Your task to perform on an android device: Open the Play Movies app and select the watchlist tab. Image 0: 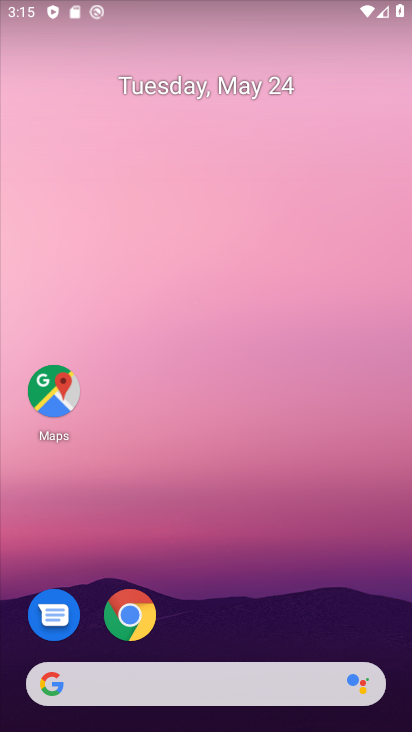
Step 0: drag from (210, 726) to (195, 45)
Your task to perform on an android device: Open the Play Movies app and select the watchlist tab. Image 1: 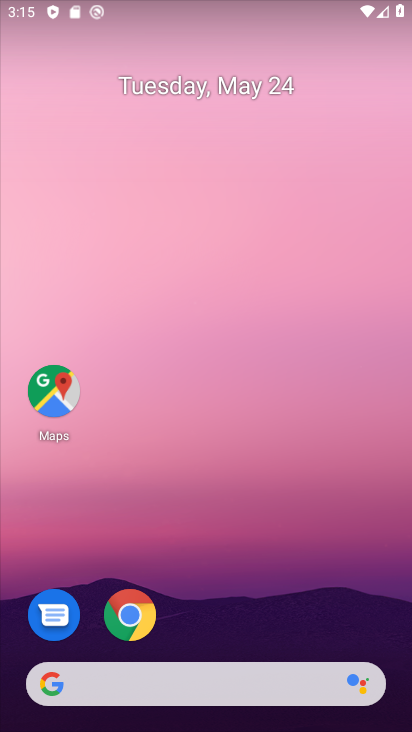
Step 1: drag from (229, 726) to (224, 40)
Your task to perform on an android device: Open the Play Movies app and select the watchlist tab. Image 2: 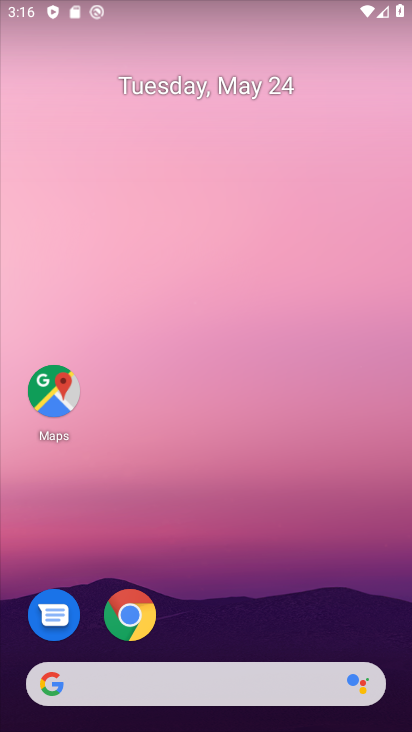
Step 2: drag from (220, 725) to (232, 114)
Your task to perform on an android device: Open the Play Movies app and select the watchlist tab. Image 3: 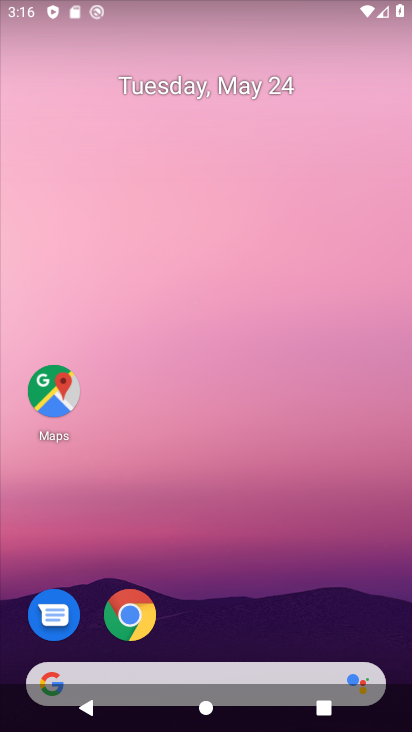
Step 3: drag from (231, 724) to (242, 107)
Your task to perform on an android device: Open the Play Movies app and select the watchlist tab. Image 4: 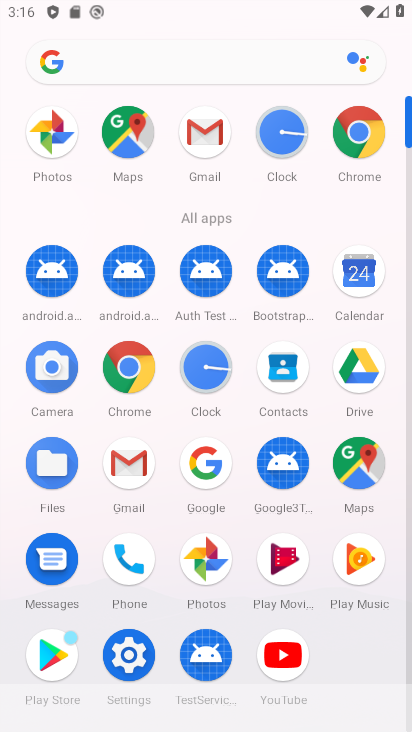
Step 4: drag from (217, 728) to (246, 137)
Your task to perform on an android device: Open the Play Movies app and select the watchlist tab. Image 5: 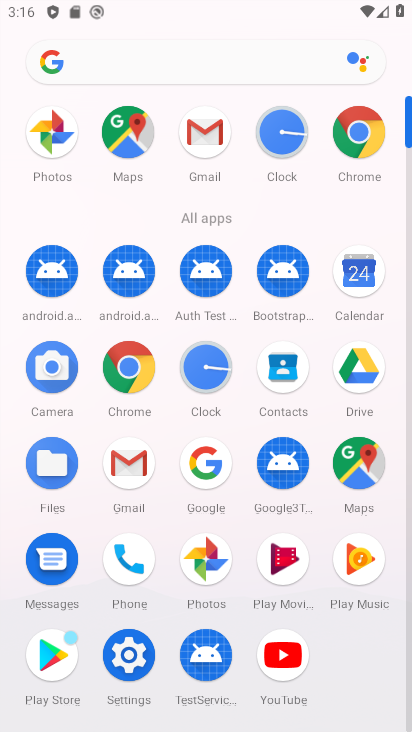
Step 5: click (284, 552)
Your task to perform on an android device: Open the Play Movies app and select the watchlist tab. Image 6: 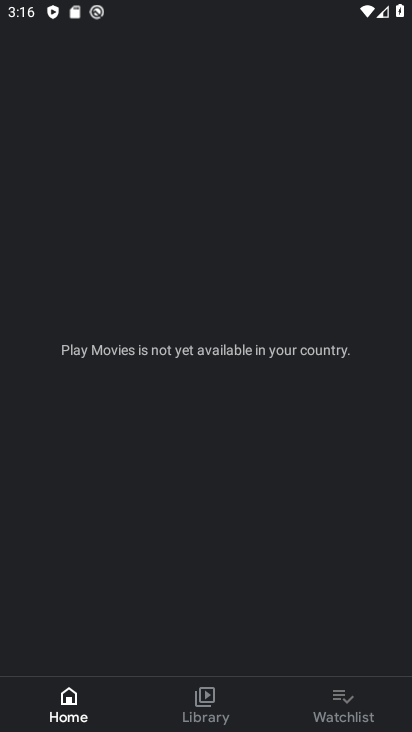
Step 6: click (345, 706)
Your task to perform on an android device: Open the Play Movies app and select the watchlist tab. Image 7: 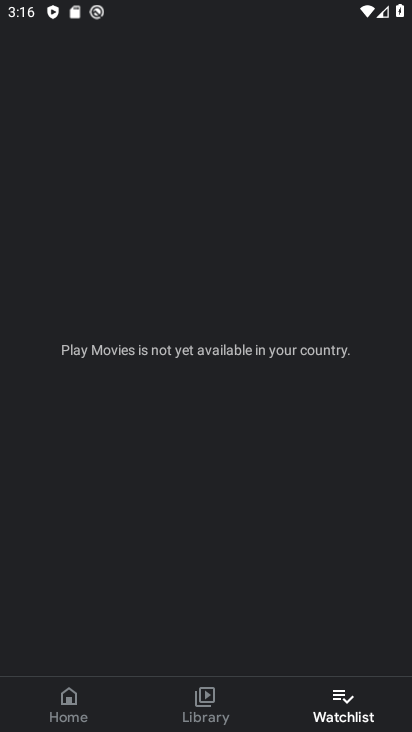
Step 7: task complete